Your task to perform on an android device: Search for flights from Mexico city to Sydney Image 0: 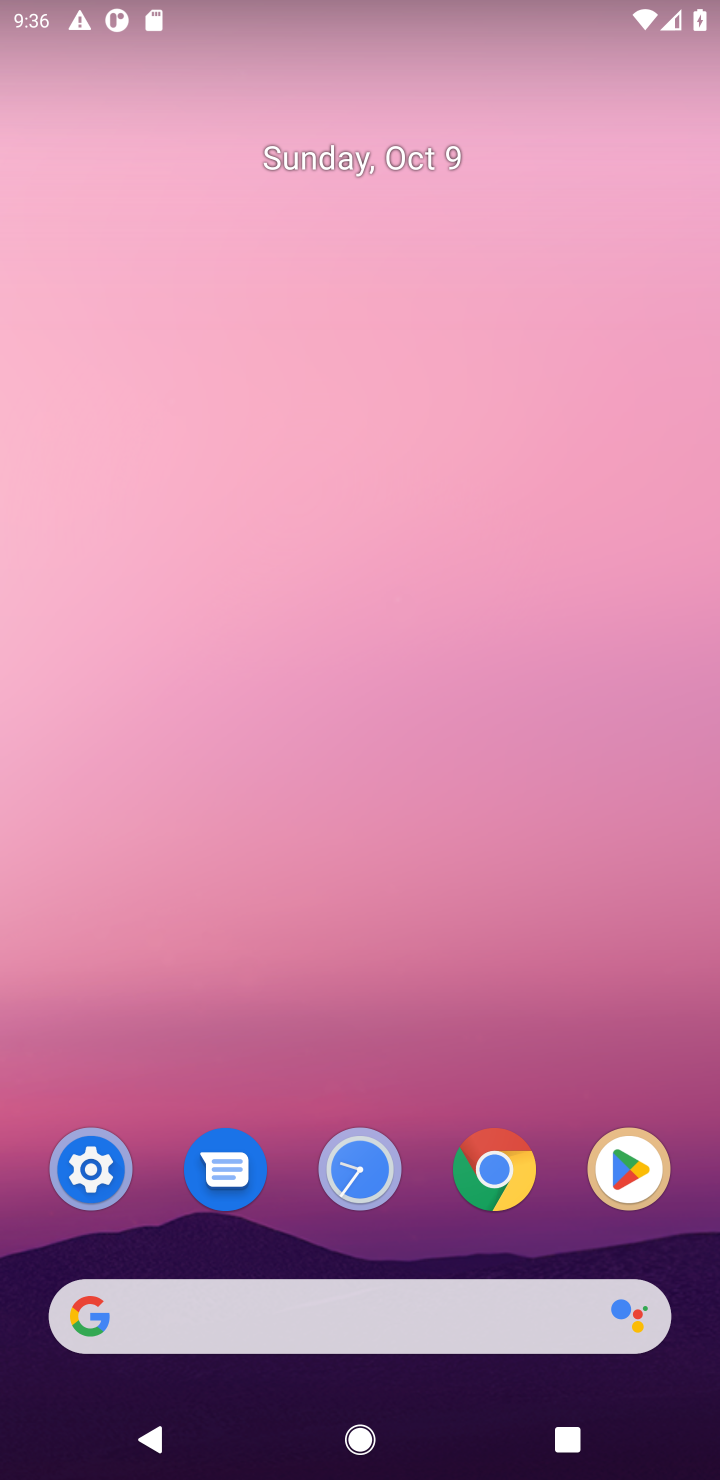
Step 0: click (215, 1312)
Your task to perform on an android device: Search for flights from Mexico city to Sydney Image 1: 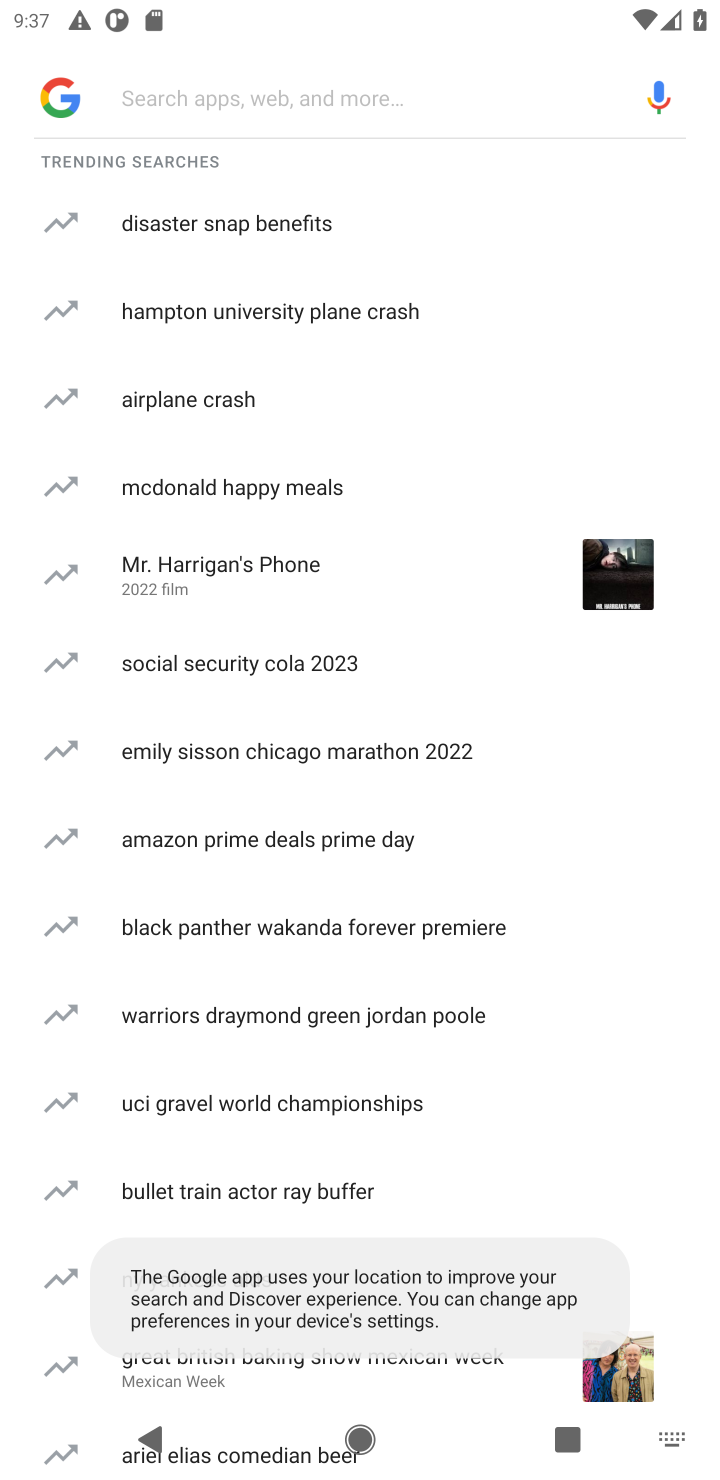
Step 1: click (284, 95)
Your task to perform on an android device: Search for flights from Mexico city to Sydney Image 2: 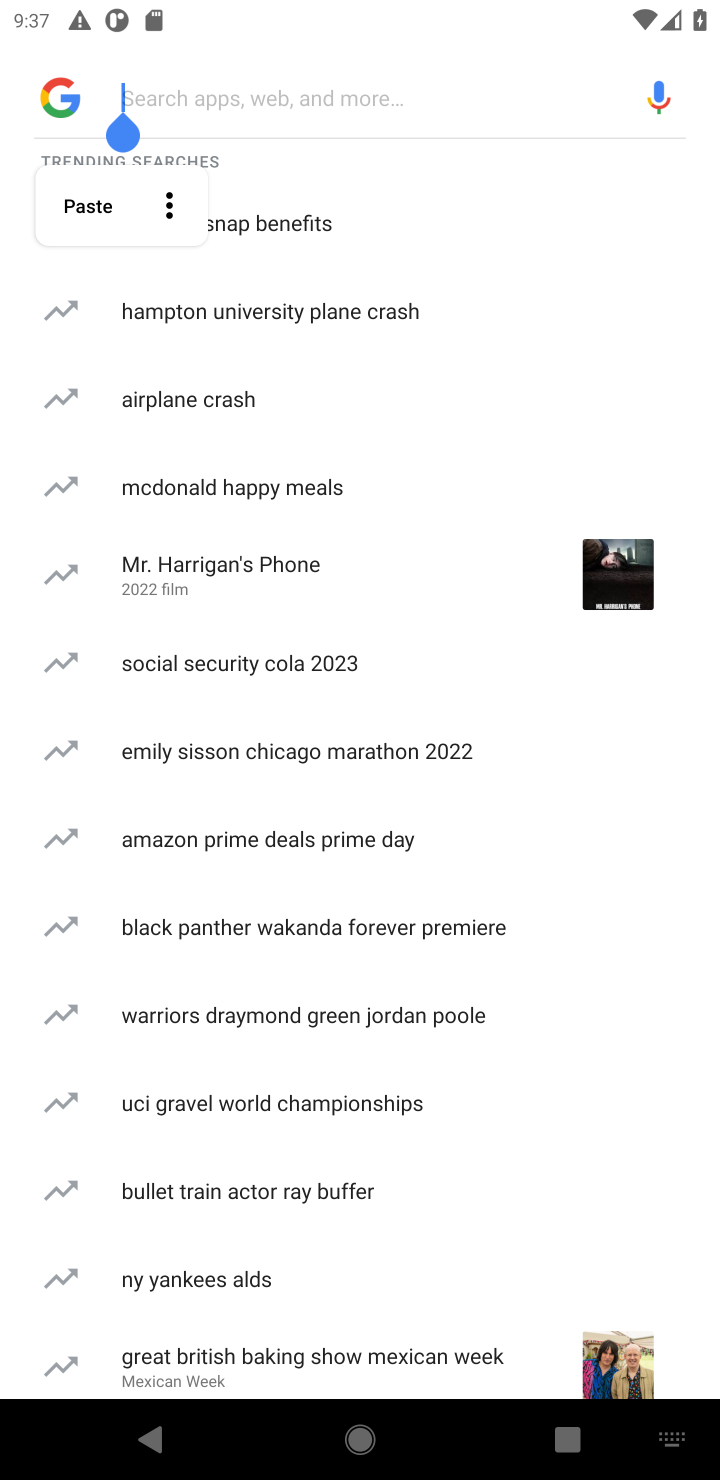
Step 2: type "flights from Mexico city to Sydney"
Your task to perform on an android device: Search for flights from Mexico city to Sydney Image 3: 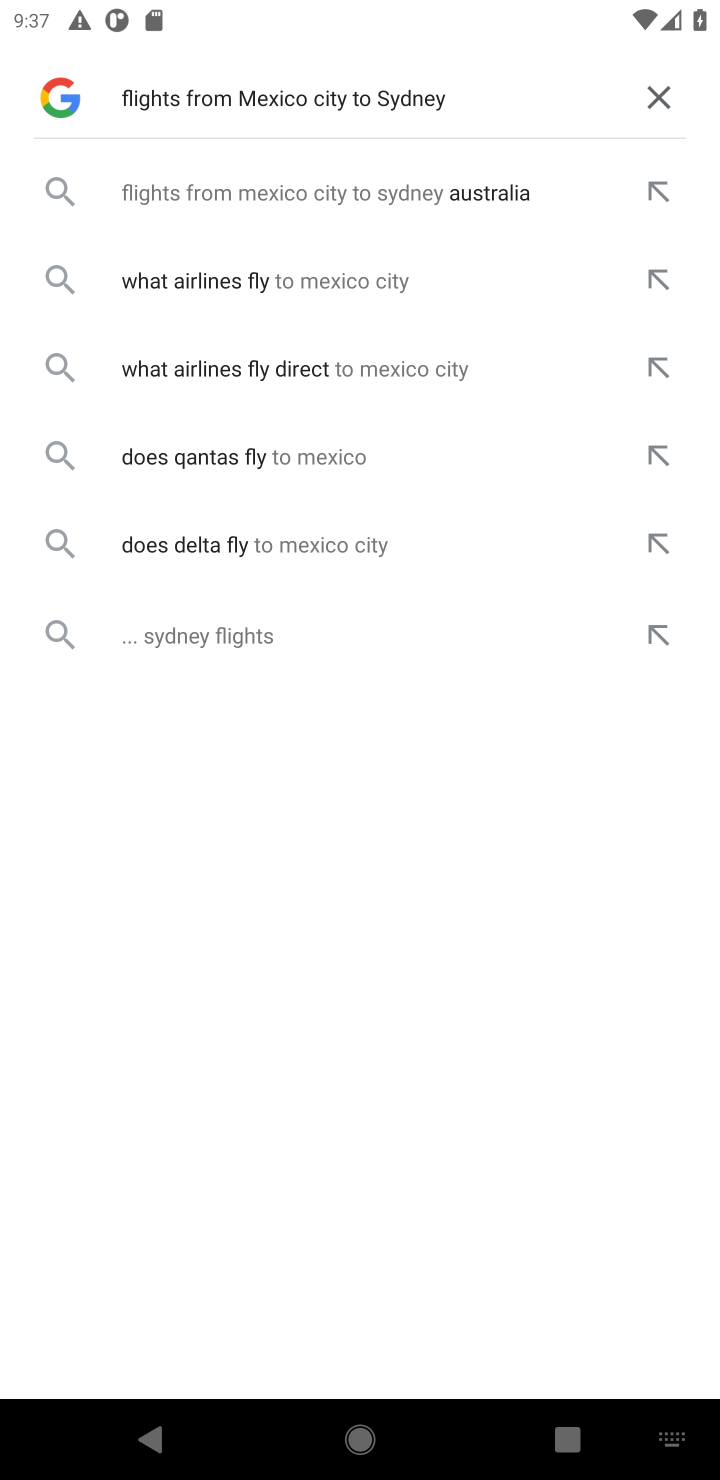
Step 3: click (288, 168)
Your task to perform on an android device: Search for flights from Mexico city to Sydney Image 4: 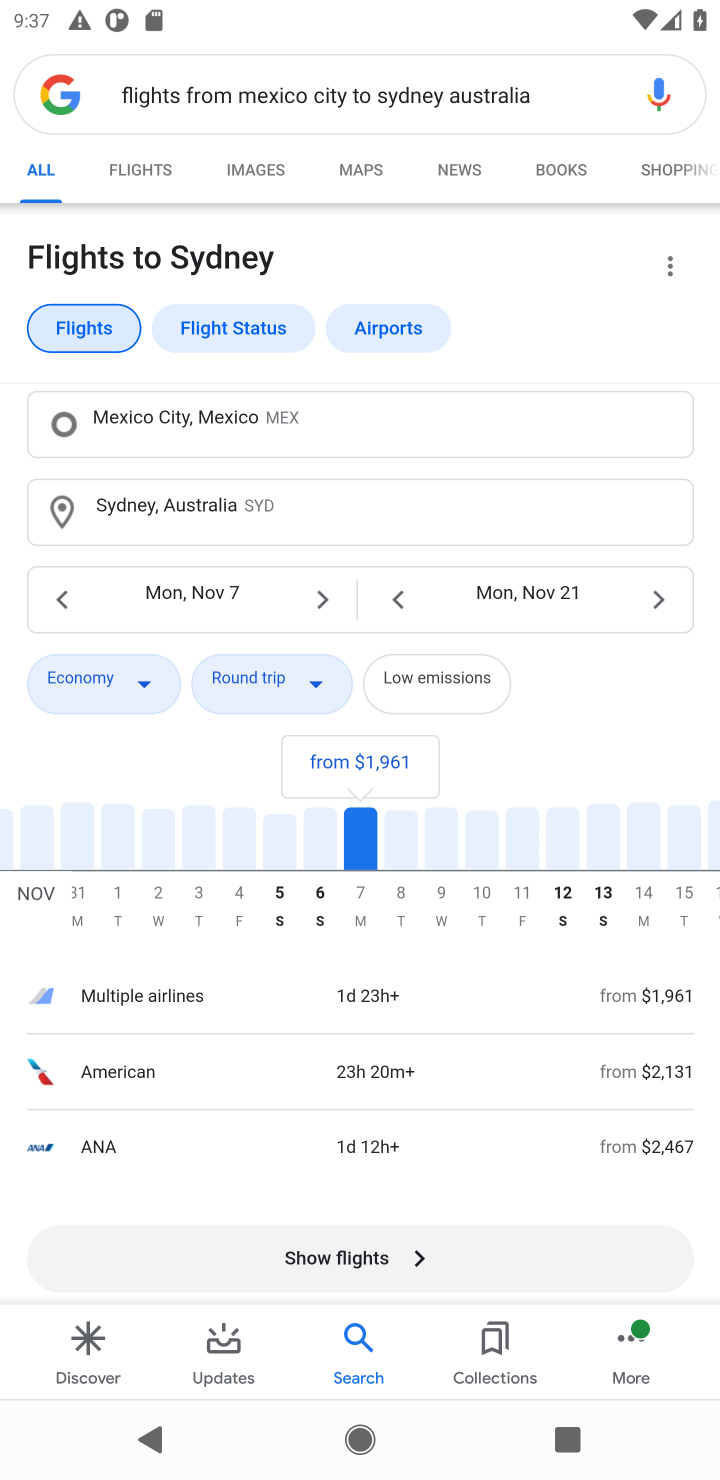
Step 4: task complete